Your task to perform on an android device: turn off sleep mode Image 0: 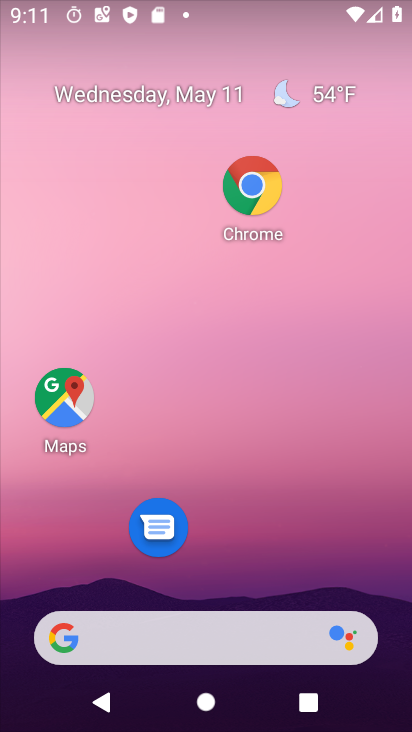
Step 0: drag from (253, 549) to (239, 40)
Your task to perform on an android device: turn off sleep mode Image 1: 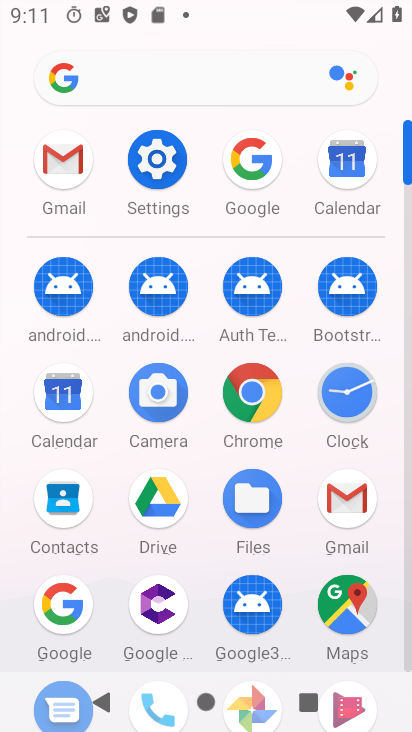
Step 1: click (160, 152)
Your task to perform on an android device: turn off sleep mode Image 2: 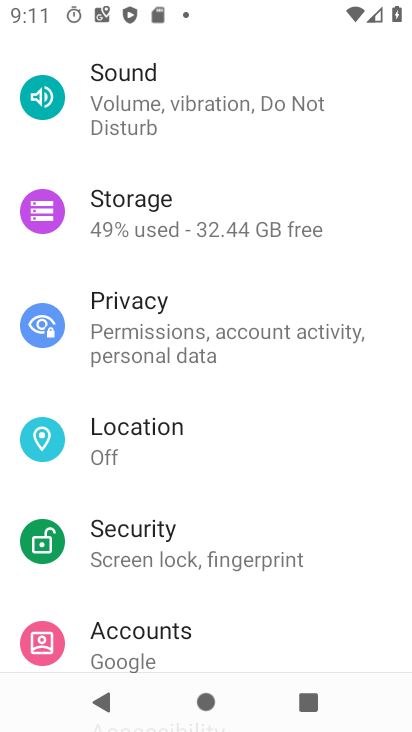
Step 2: drag from (177, 209) to (172, 474)
Your task to perform on an android device: turn off sleep mode Image 3: 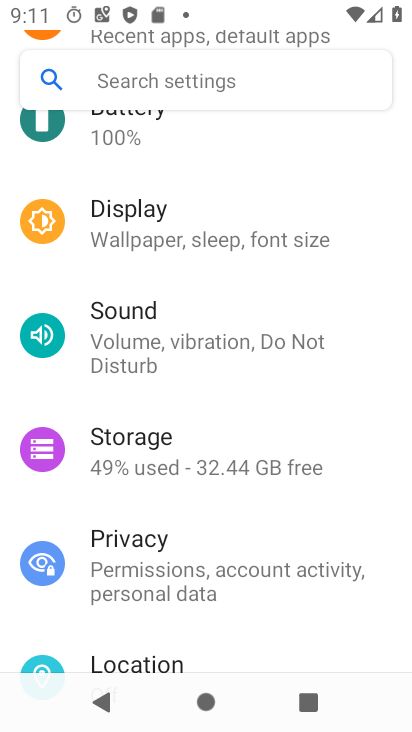
Step 3: click (170, 238)
Your task to perform on an android device: turn off sleep mode Image 4: 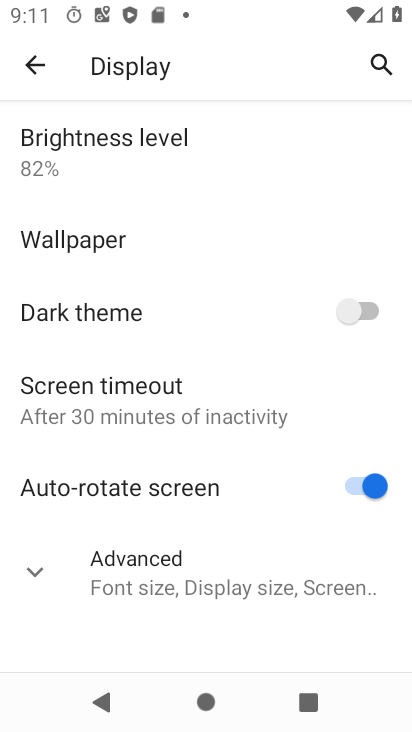
Step 4: click (119, 398)
Your task to perform on an android device: turn off sleep mode Image 5: 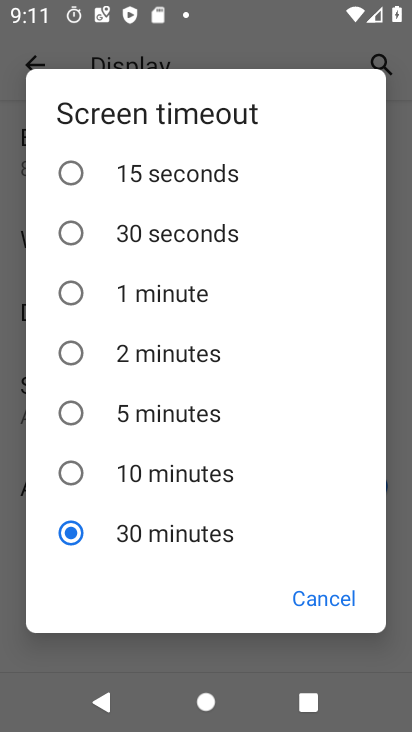
Step 5: task complete